Your task to perform on an android device: add a label to a message in the gmail app Image 0: 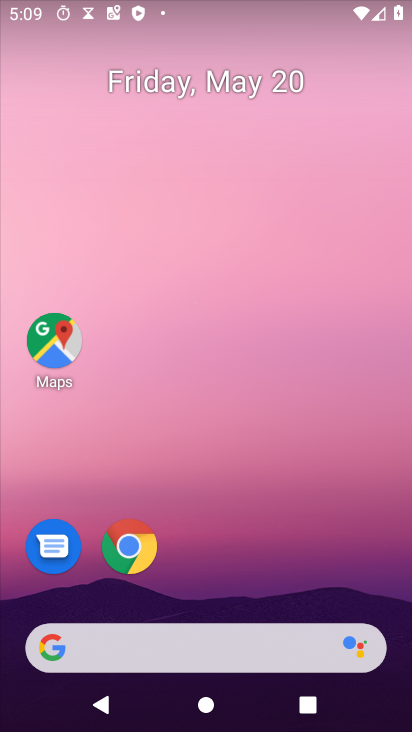
Step 0: drag from (266, 563) to (223, 193)
Your task to perform on an android device: add a label to a message in the gmail app Image 1: 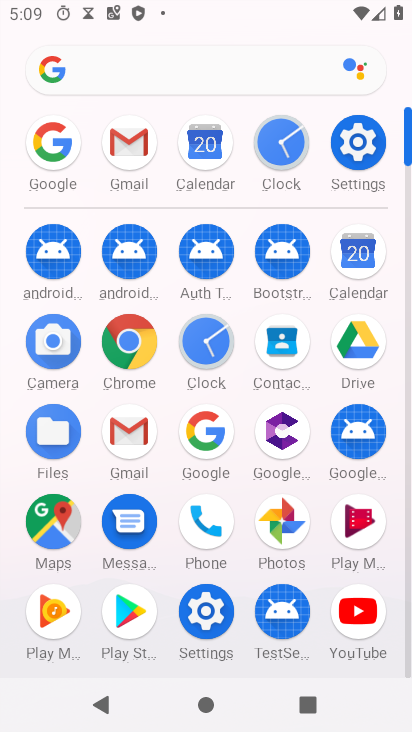
Step 1: click (124, 142)
Your task to perform on an android device: add a label to a message in the gmail app Image 2: 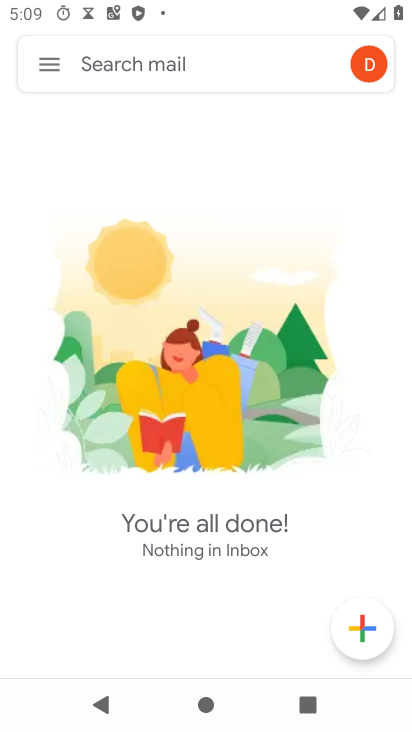
Step 2: click (46, 74)
Your task to perform on an android device: add a label to a message in the gmail app Image 3: 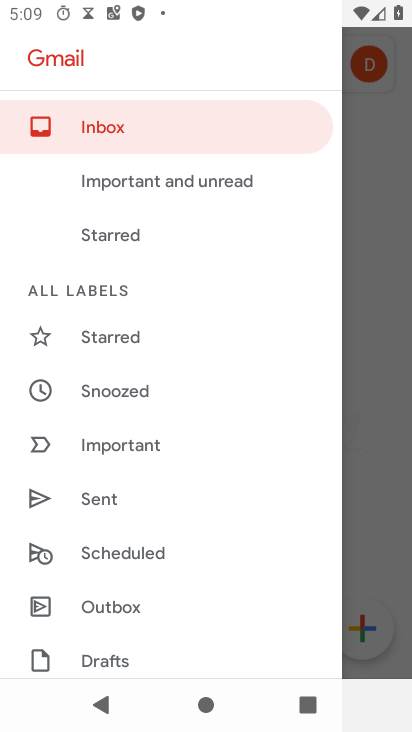
Step 3: drag from (111, 489) to (120, 425)
Your task to perform on an android device: add a label to a message in the gmail app Image 4: 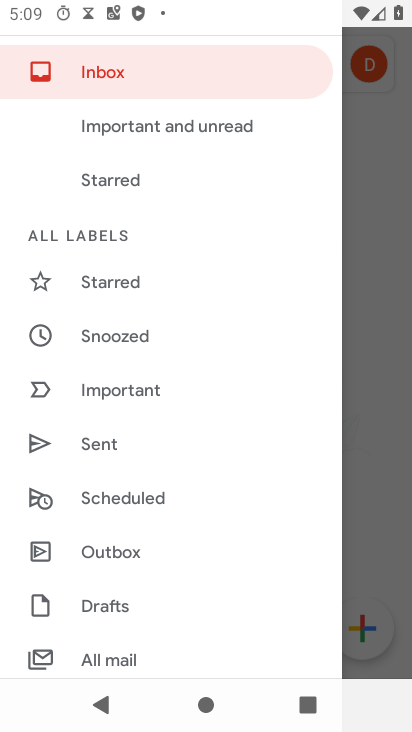
Step 4: click (112, 79)
Your task to perform on an android device: add a label to a message in the gmail app Image 5: 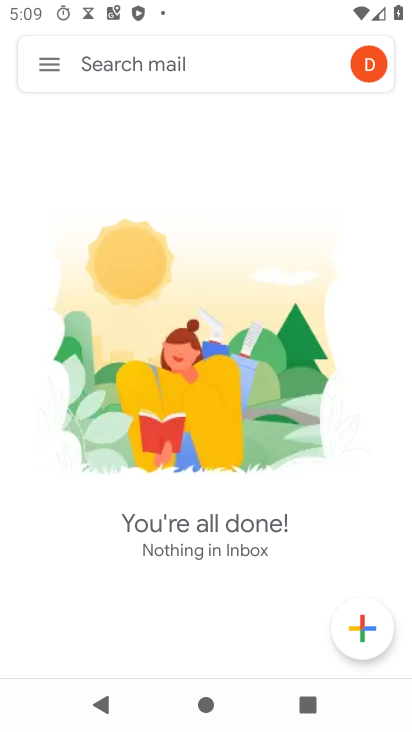
Step 5: click (59, 63)
Your task to perform on an android device: add a label to a message in the gmail app Image 6: 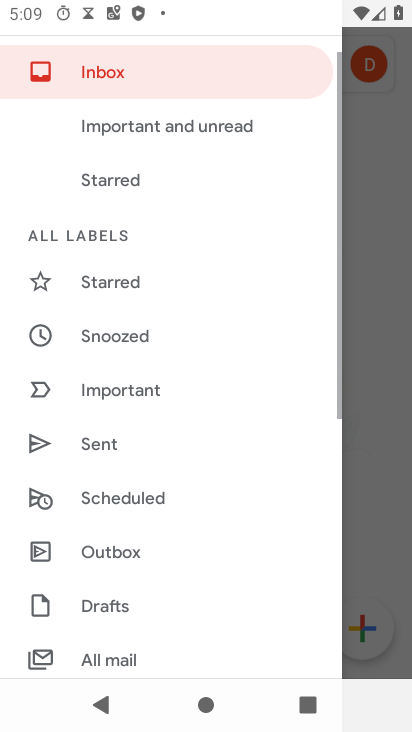
Step 6: drag from (145, 538) to (178, 404)
Your task to perform on an android device: add a label to a message in the gmail app Image 7: 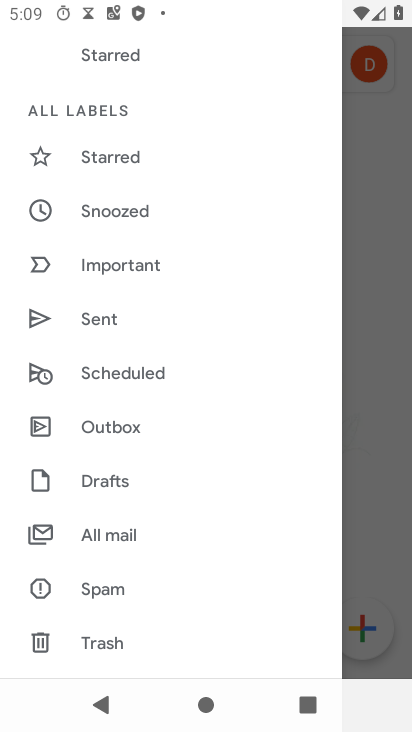
Step 7: click (134, 543)
Your task to perform on an android device: add a label to a message in the gmail app Image 8: 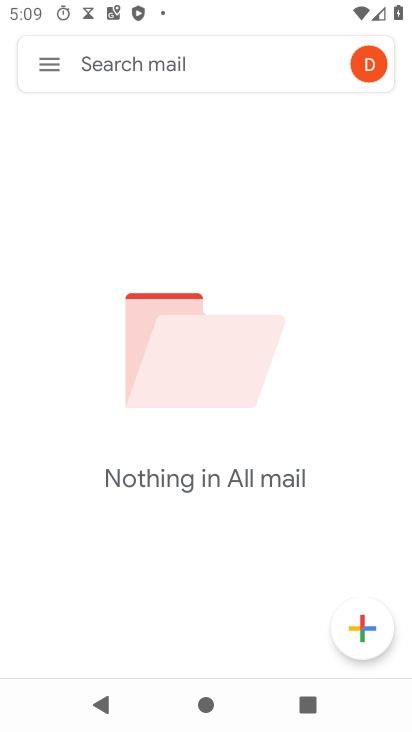
Step 8: task complete